Your task to perform on an android device: install app "Truecaller" Image 0: 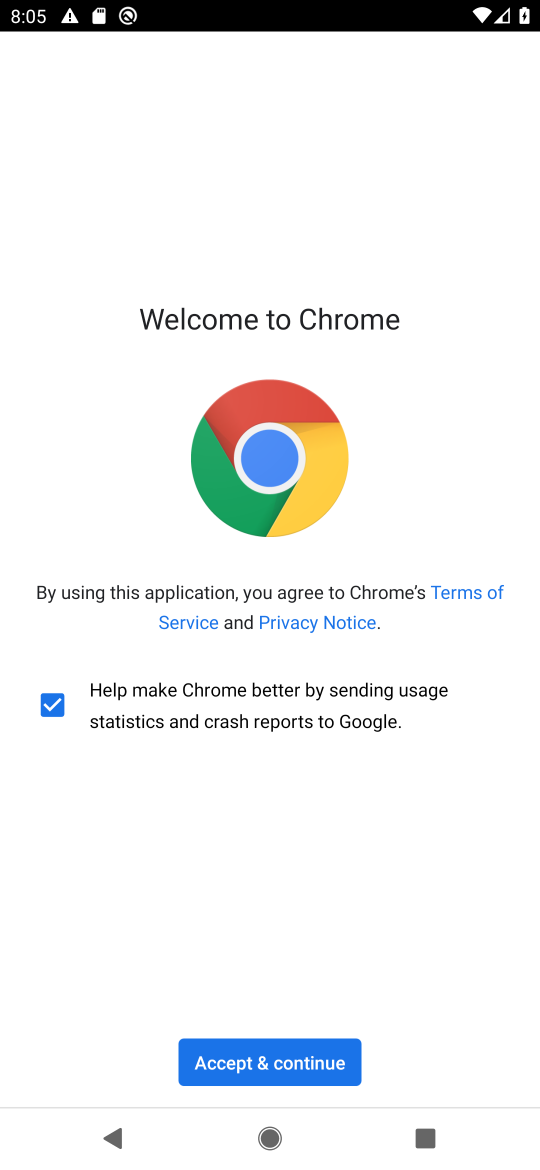
Step 0: press home button
Your task to perform on an android device: install app "Truecaller" Image 1: 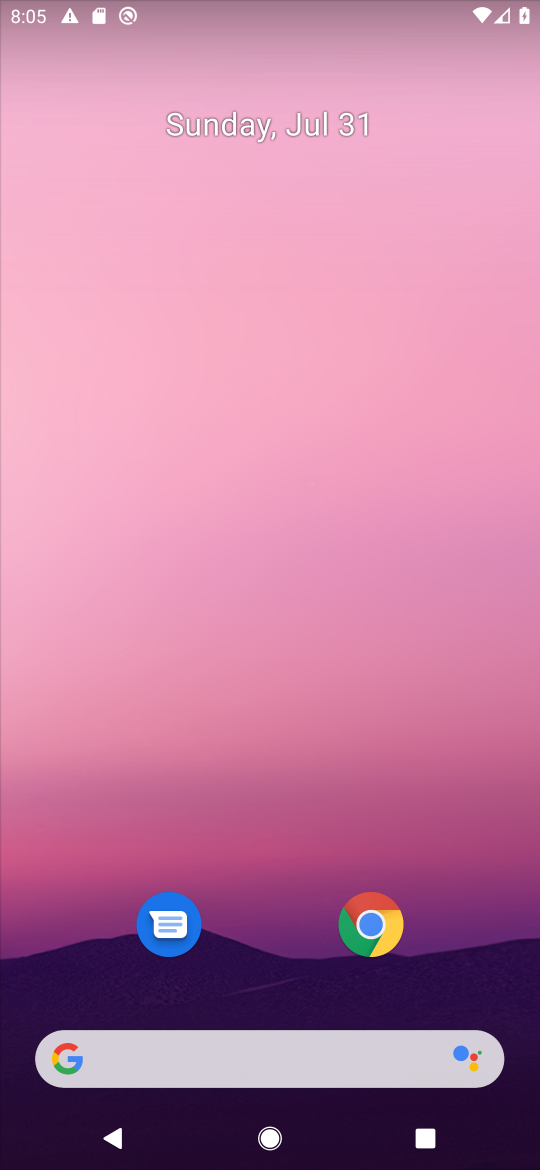
Step 1: drag from (261, 985) to (367, 307)
Your task to perform on an android device: install app "Truecaller" Image 2: 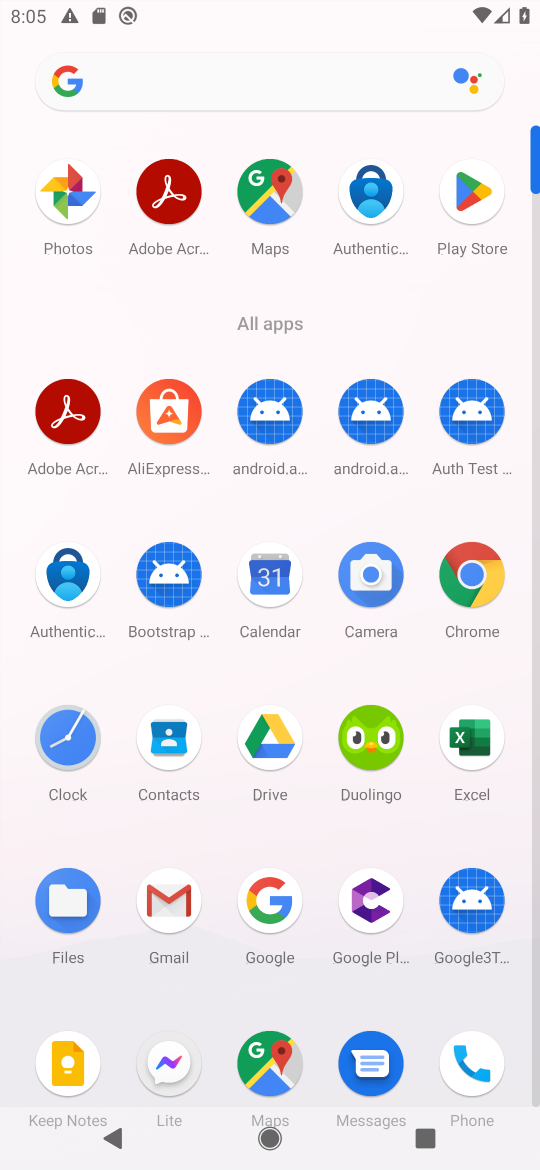
Step 2: click (452, 186)
Your task to perform on an android device: install app "Truecaller" Image 3: 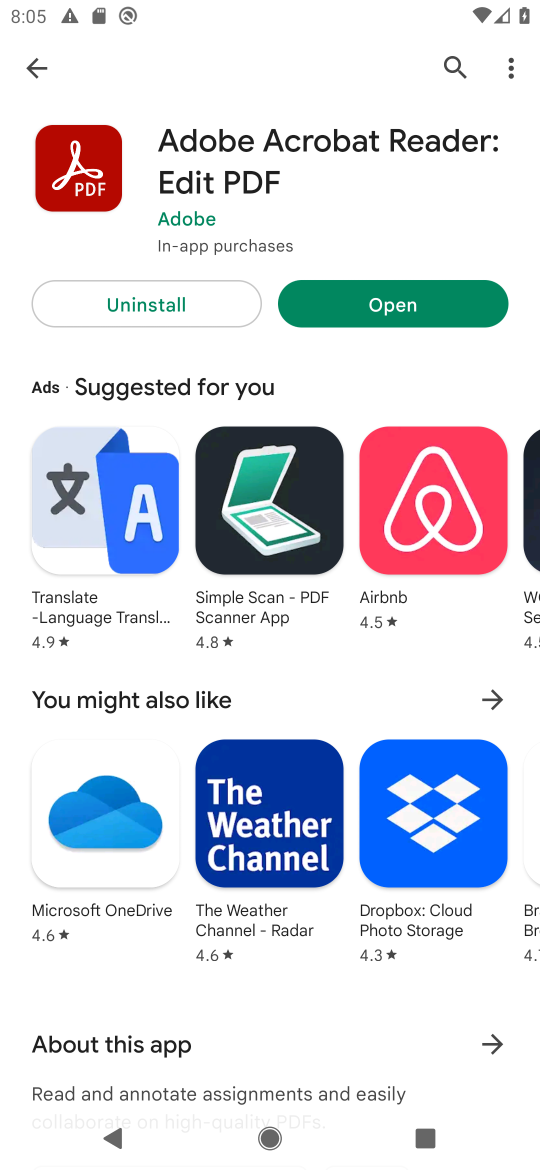
Step 3: click (44, 66)
Your task to perform on an android device: install app "Truecaller" Image 4: 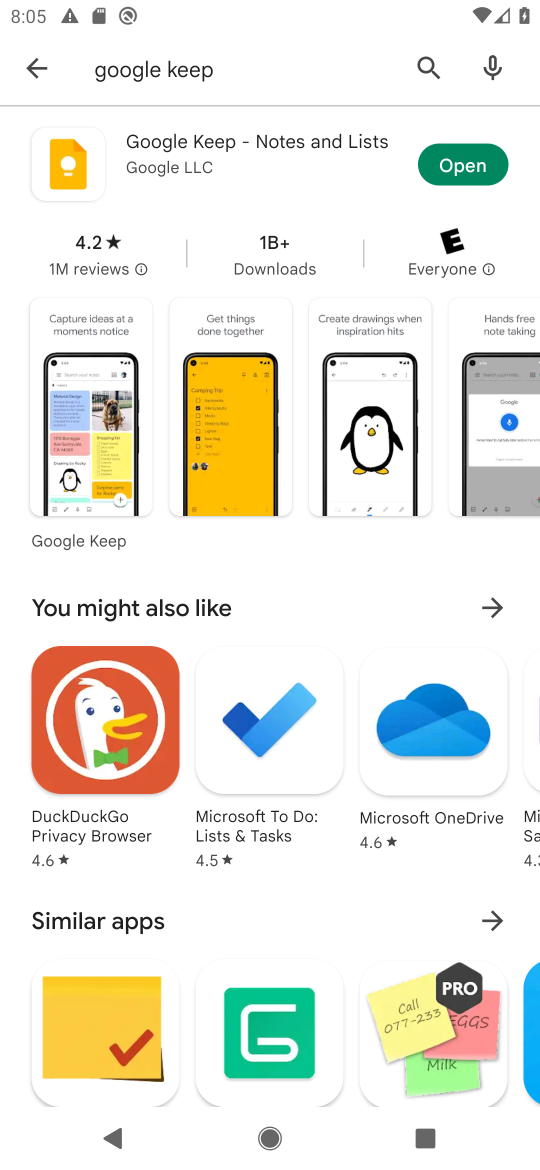
Step 4: click (417, 53)
Your task to perform on an android device: install app "Truecaller" Image 5: 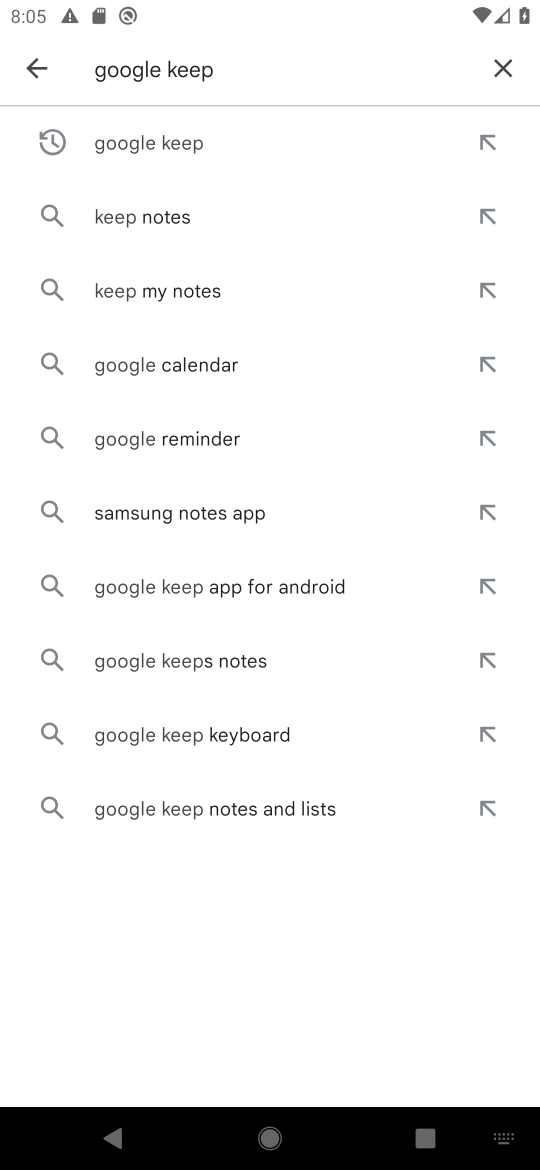
Step 5: click (499, 80)
Your task to perform on an android device: install app "Truecaller" Image 6: 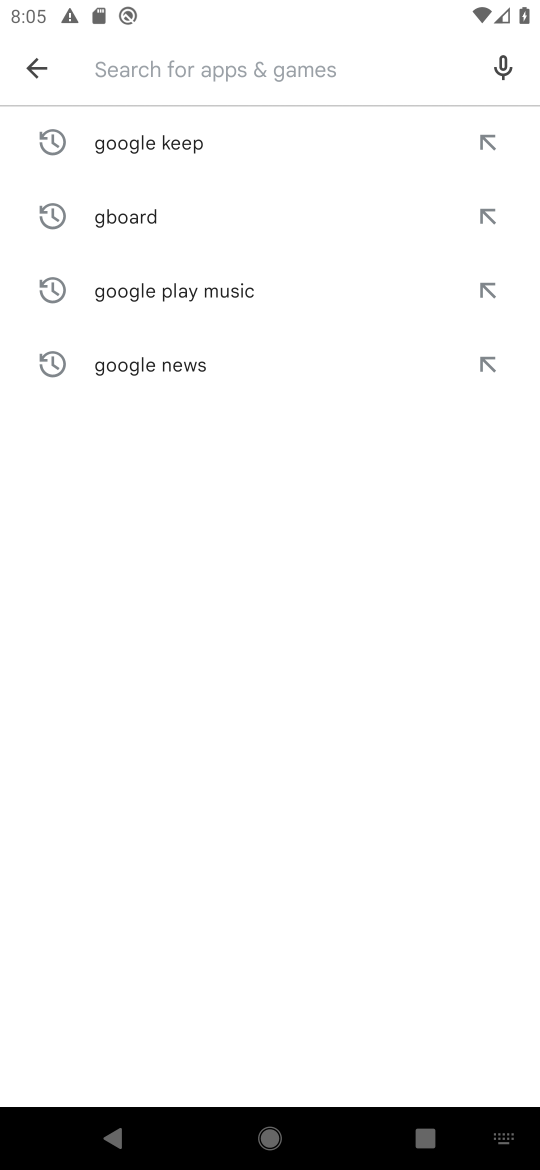
Step 6: type "Truecaller"
Your task to perform on an android device: install app "Truecaller" Image 7: 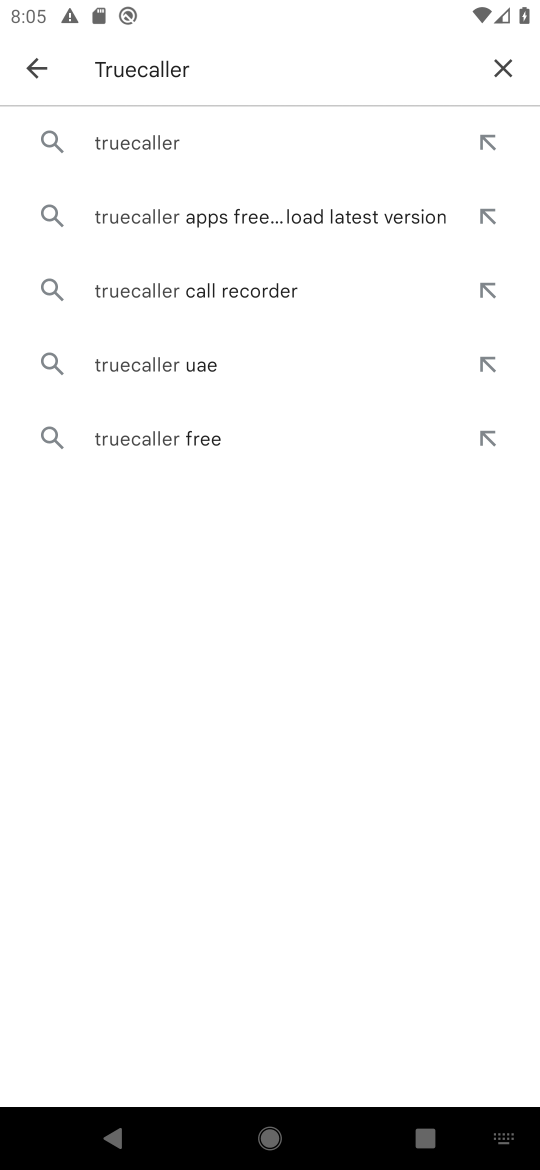
Step 7: click (125, 153)
Your task to perform on an android device: install app "Truecaller" Image 8: 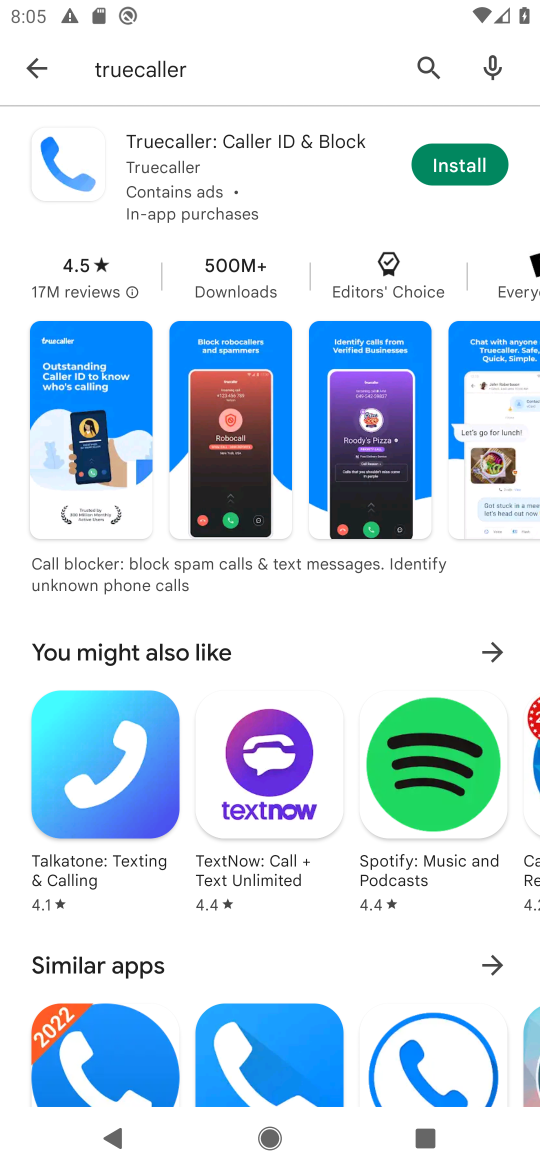
Step 8: click (482, 158)
Your task to perform on an android device: install app "Truecaller" Image 9: 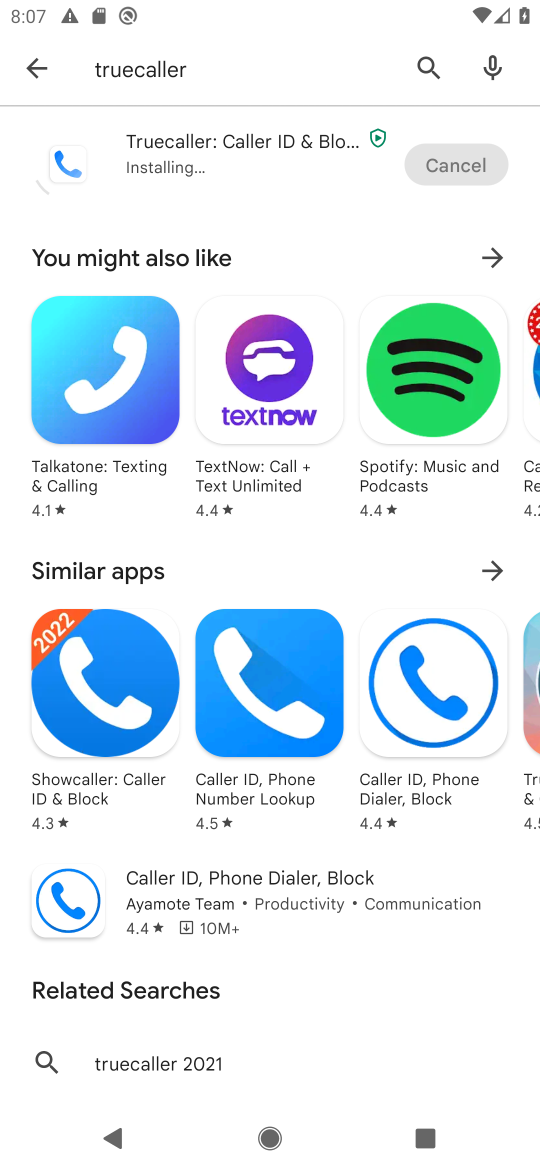
Step 9: task complete